Your task to perform on an android device: toggle notifications settings in the gmail app Image 0: 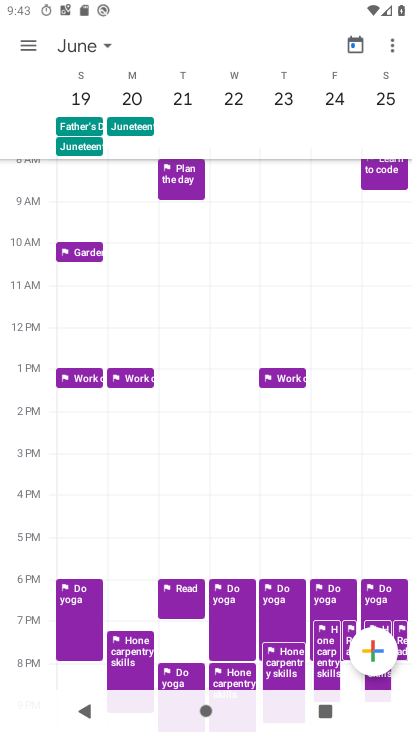
Step 0: press home button
Your task to perform on an android device: toggle notifications settings in the gmail app Image 1: 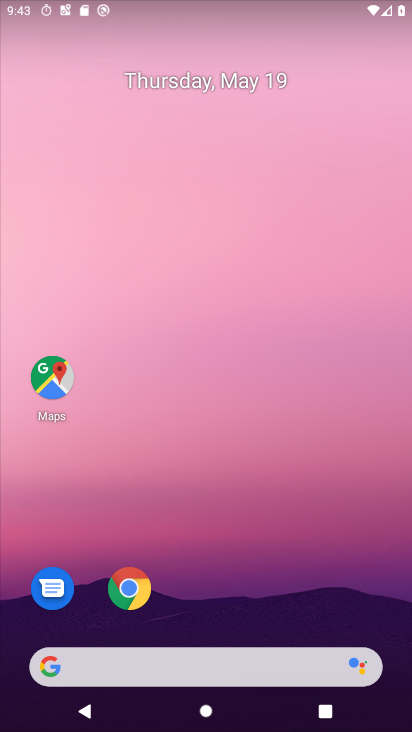
Step 1: drag from (159, 663) to (289, 174)
Your task to perform on an android device: toggle notifications settings in the gmail app Image 2: 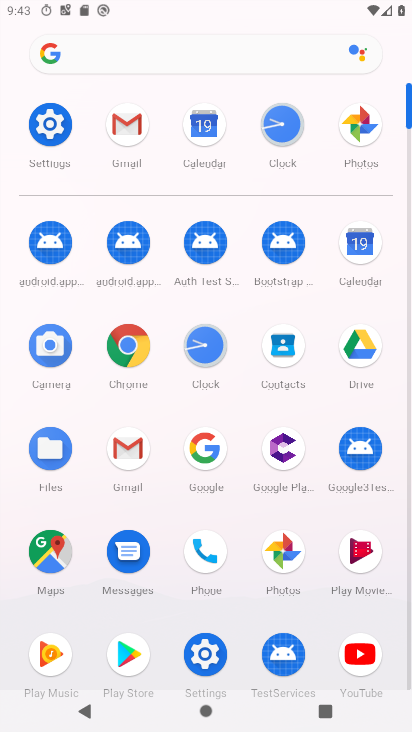
Step 2: click (124, 136)
Your task to perform on an android device: toggle notifications settings in the gmail app Image 3: 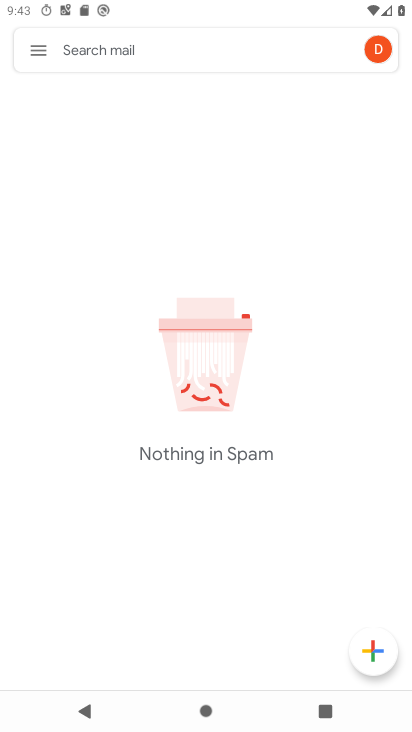
Step 3: click (37, 46)
Your task to perform on an android device: toggle notifications settings in the gmail app Image 4: 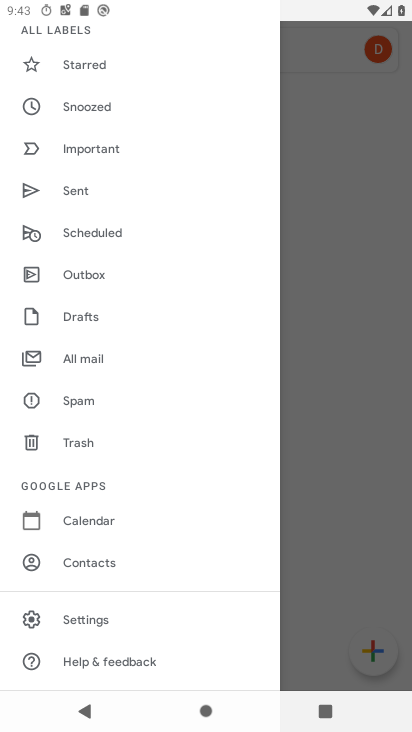
Step 4: click (91, 619)
Your task to perform on an android device: toggle notifications settings in the gmail app Image 5: 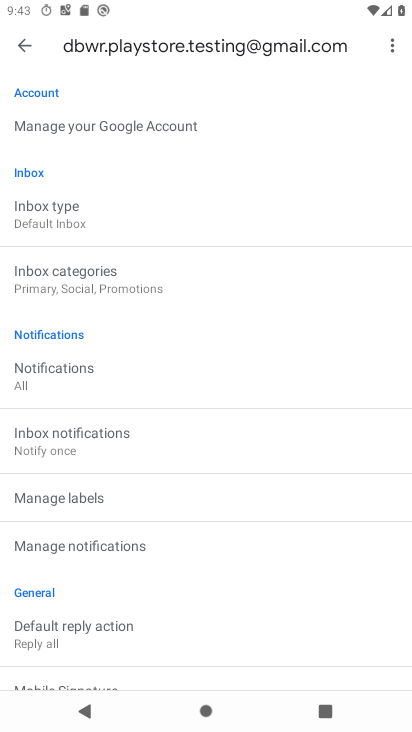
Step 5: click (66, 379)
Your task to perform on an android device: toggle notifications settings in the gmail app Image 6: 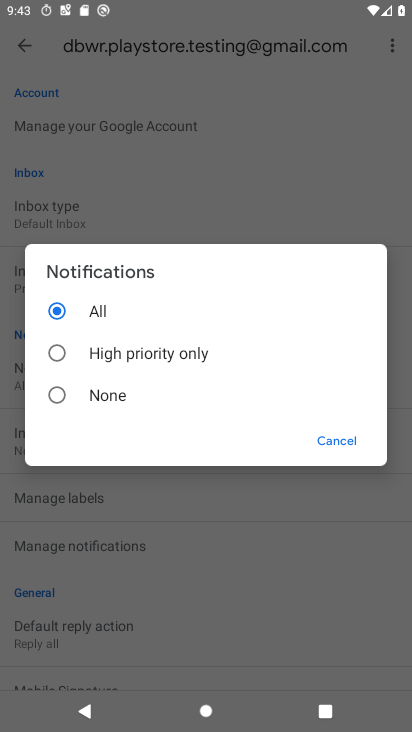
Step 6: click (62, 390)
Your task to perform on an android device: toggle notifications settings in the gmail app Image 7: 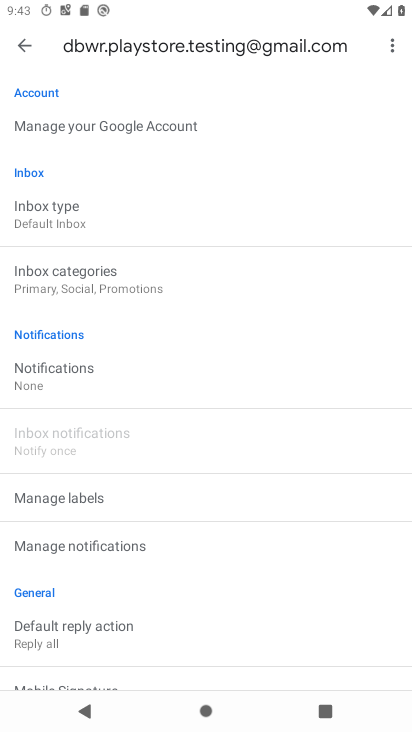
Step 7: task complete